Your task to perform on an android device: Open Android settings Image 0: 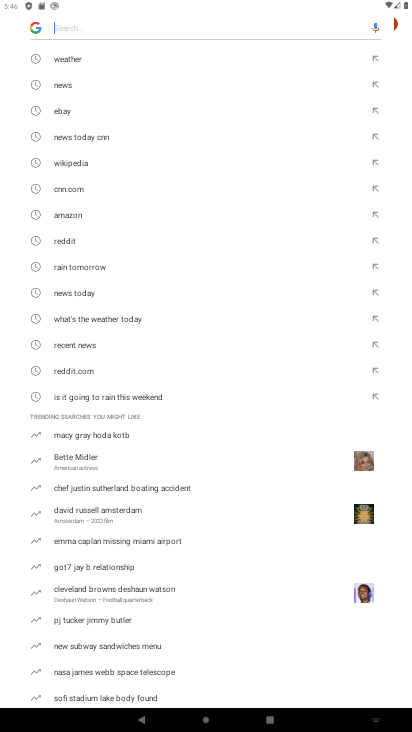
Step 0: press home button
Your task to perform on an android device: Open Android settings Image 1: 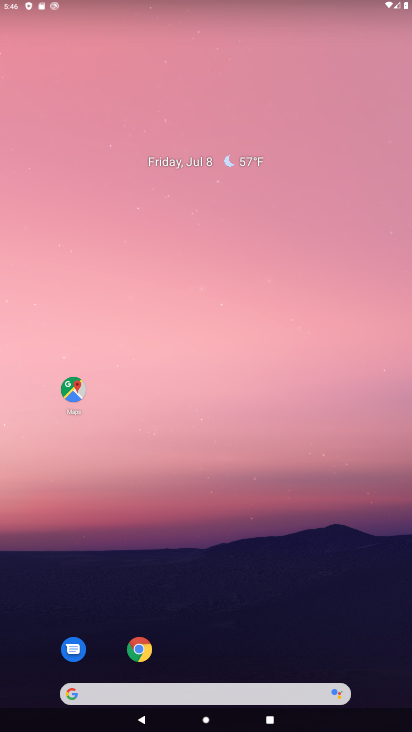
Step 1: drag from (160, 686) to (201, 43)
Your task to perform on an android device: Open Android settings Image 2: 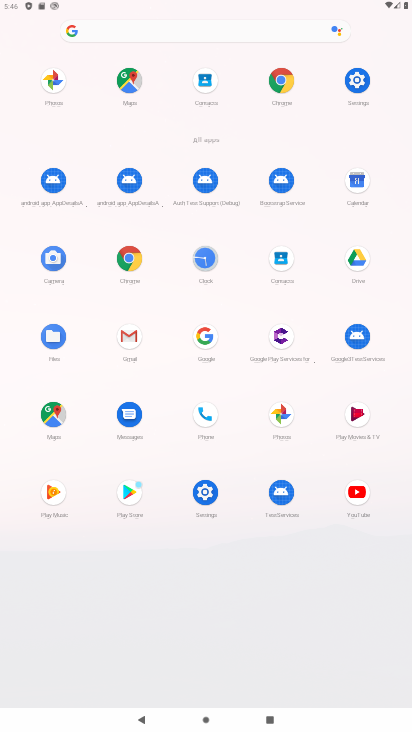
Step 2: click (359, 80)
Your task to perform on an android device: Open Android settings Image 3: 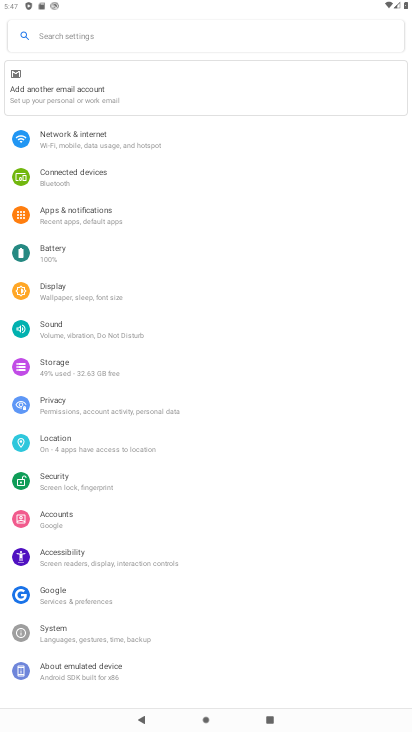
Step 3: click (126, 349)
Your task to perform on an android device: Open Android settings Image 4: 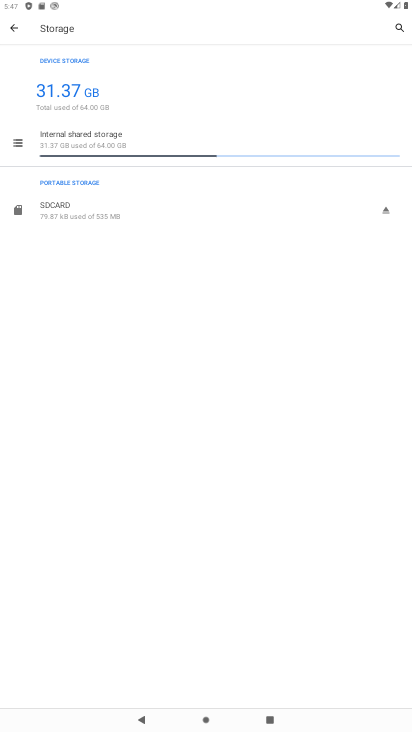
Step 4: click (88, 665)
Your task to perform on an android device: Open Android settings Image 5: 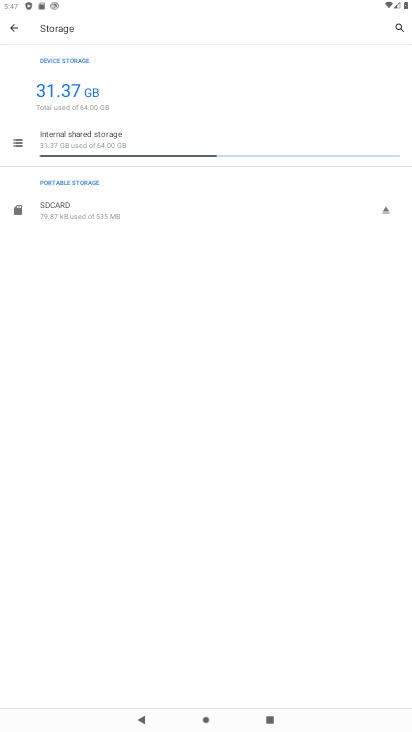
Step 5: press back button
Your task to perform on an android device: Open Android settings Image 6: 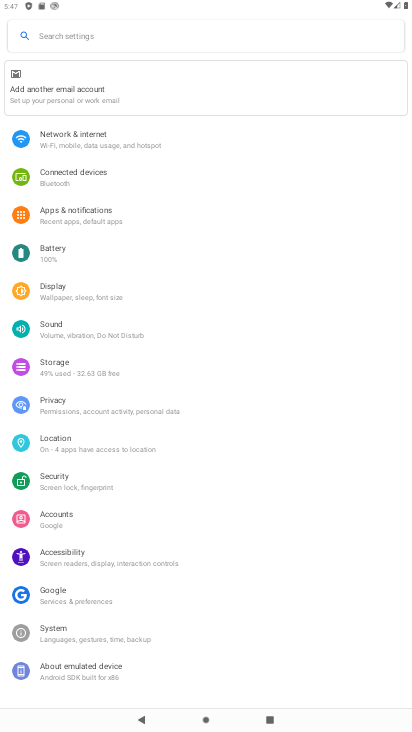
Step 6: click (96, 673)
Your task to perform on an android device: Open Android settings Image 7: 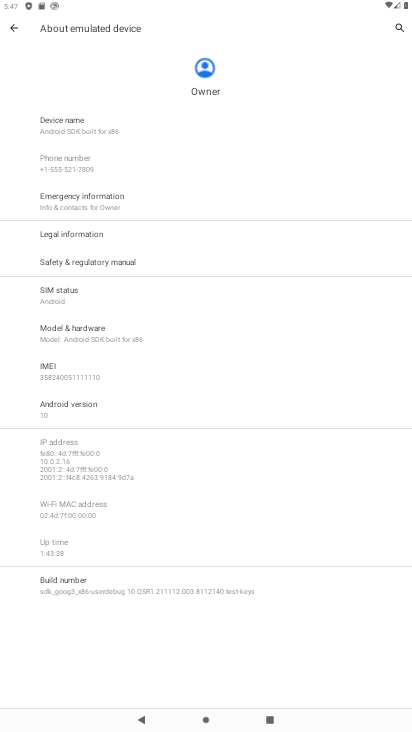
Step 7: click (47, 414)
Your task to perform on an android device: Open Android settings Image 8: 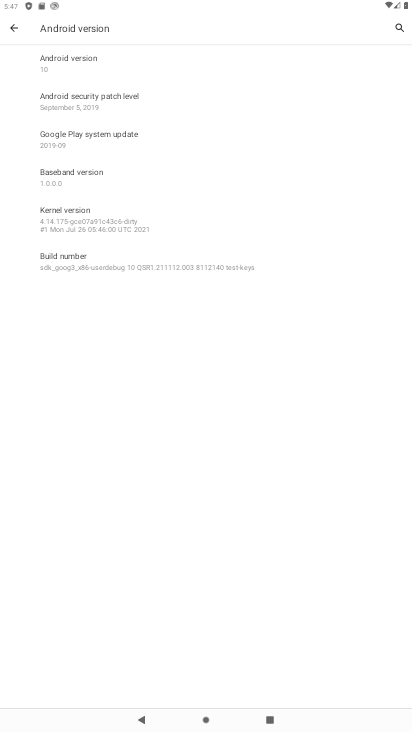
Step 8: task complete